Your task to perform on an android device: check storage Image 0: 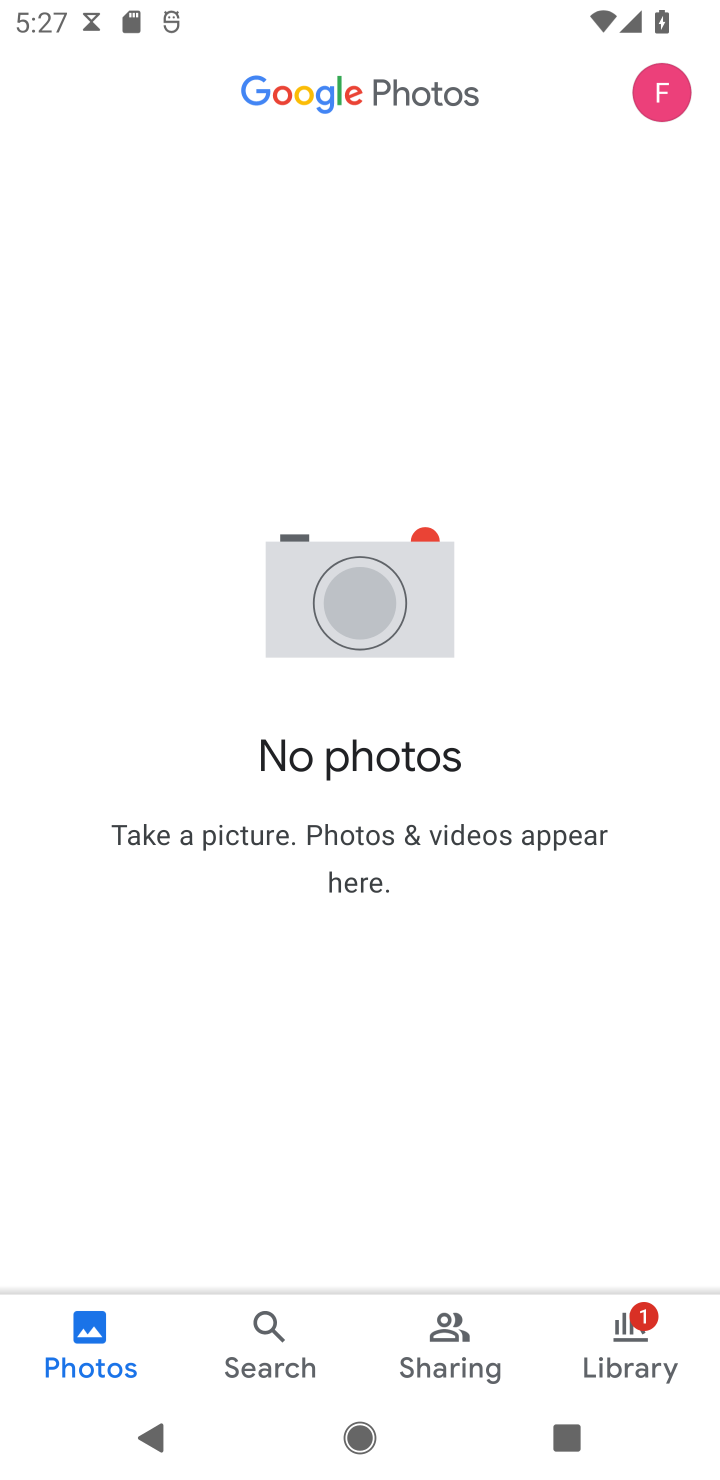
Step 0: press home button
Your task to perform on an android device: check storage Image 1: 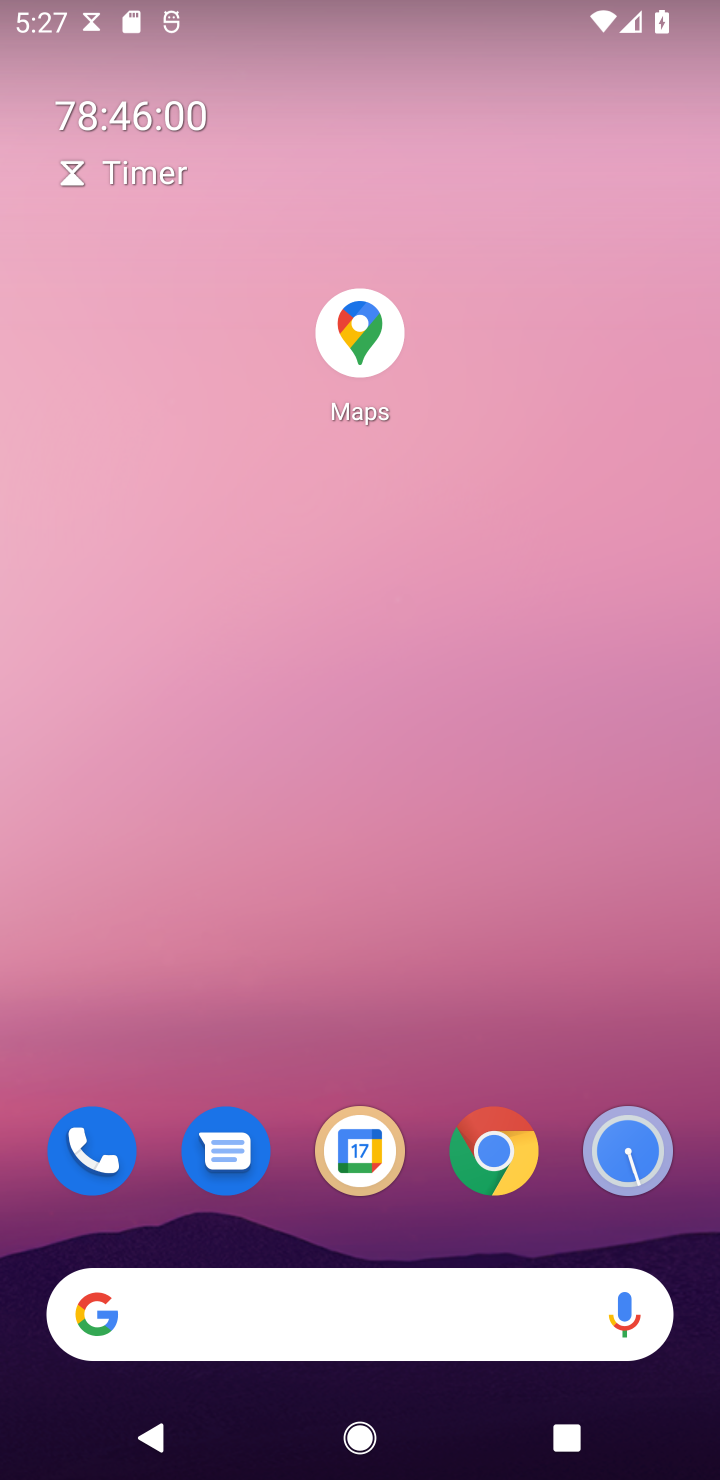
Step 1: drag from (393, 1117) to (515, 311)
Your task to perform on an android device: check storage Image 2: 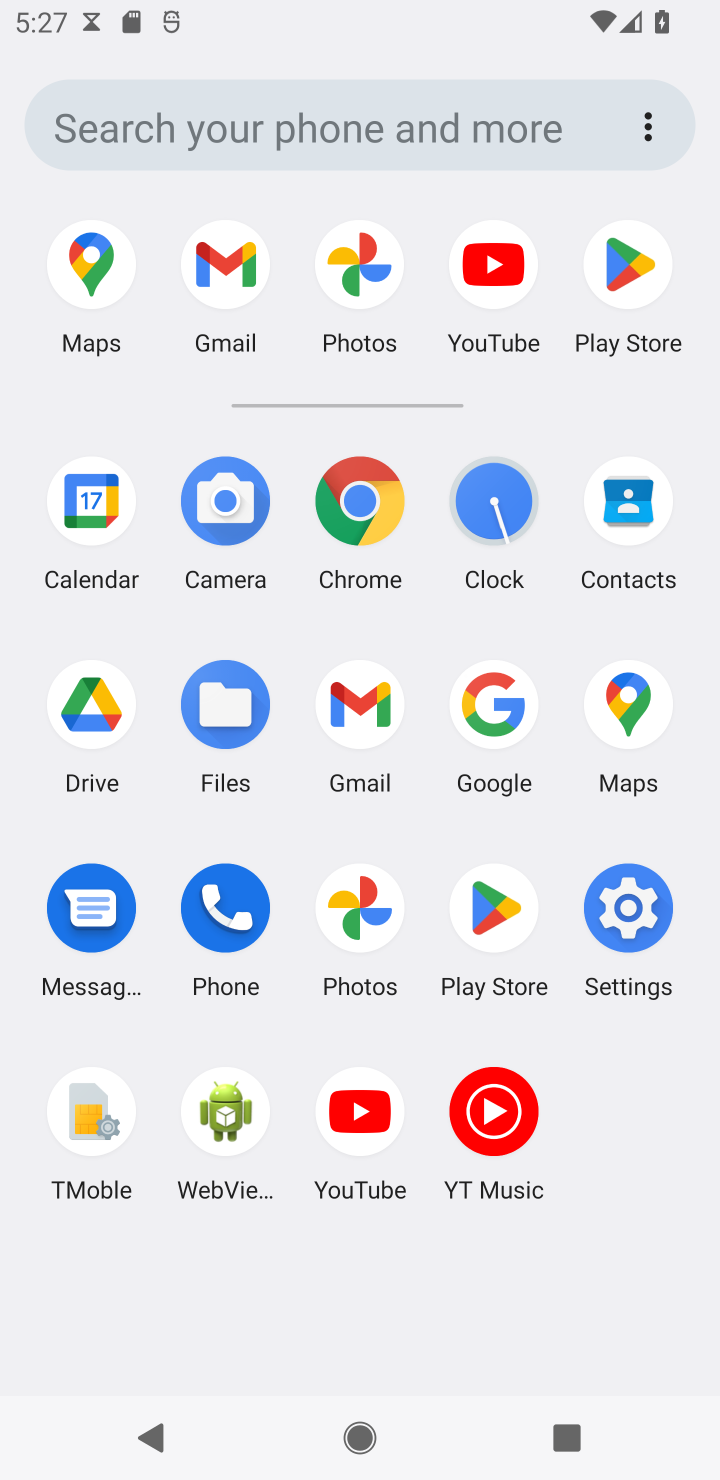
Step 2: click (611, 899)
Your task to perform on an android device: check storage Image 3: 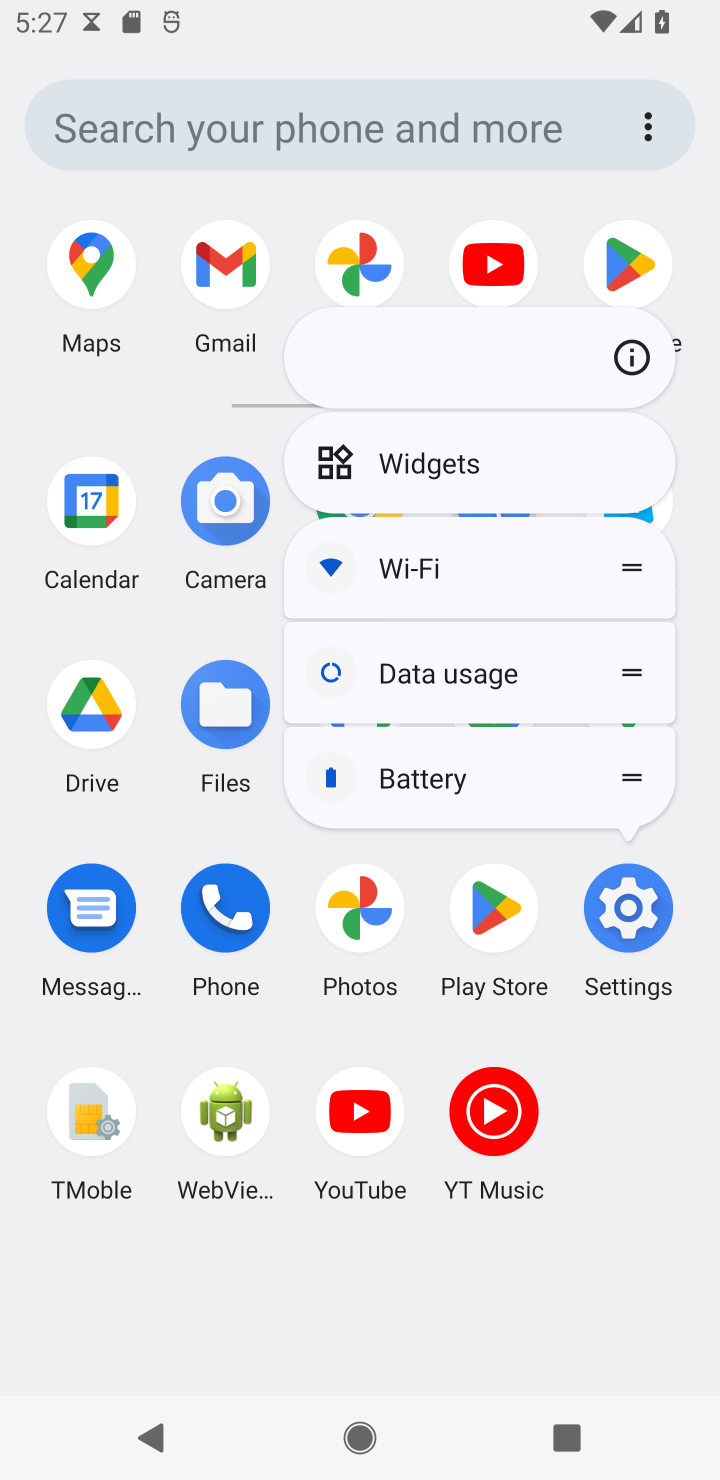
Step 3: click (634, 925)
Your task to perform on an android device: check storage Image 4: 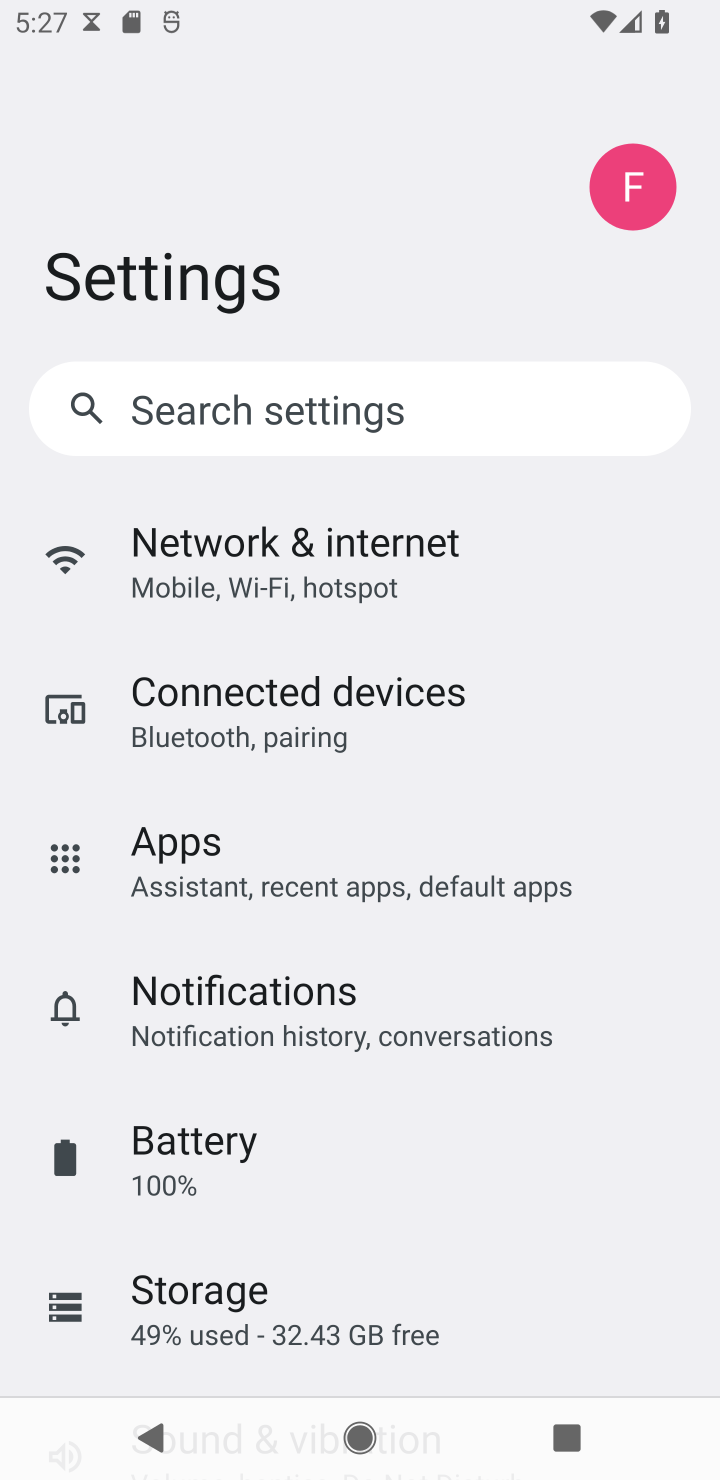
Step 4: click (252, 1247)
Your task to perform on an android device: check storage Image 5: 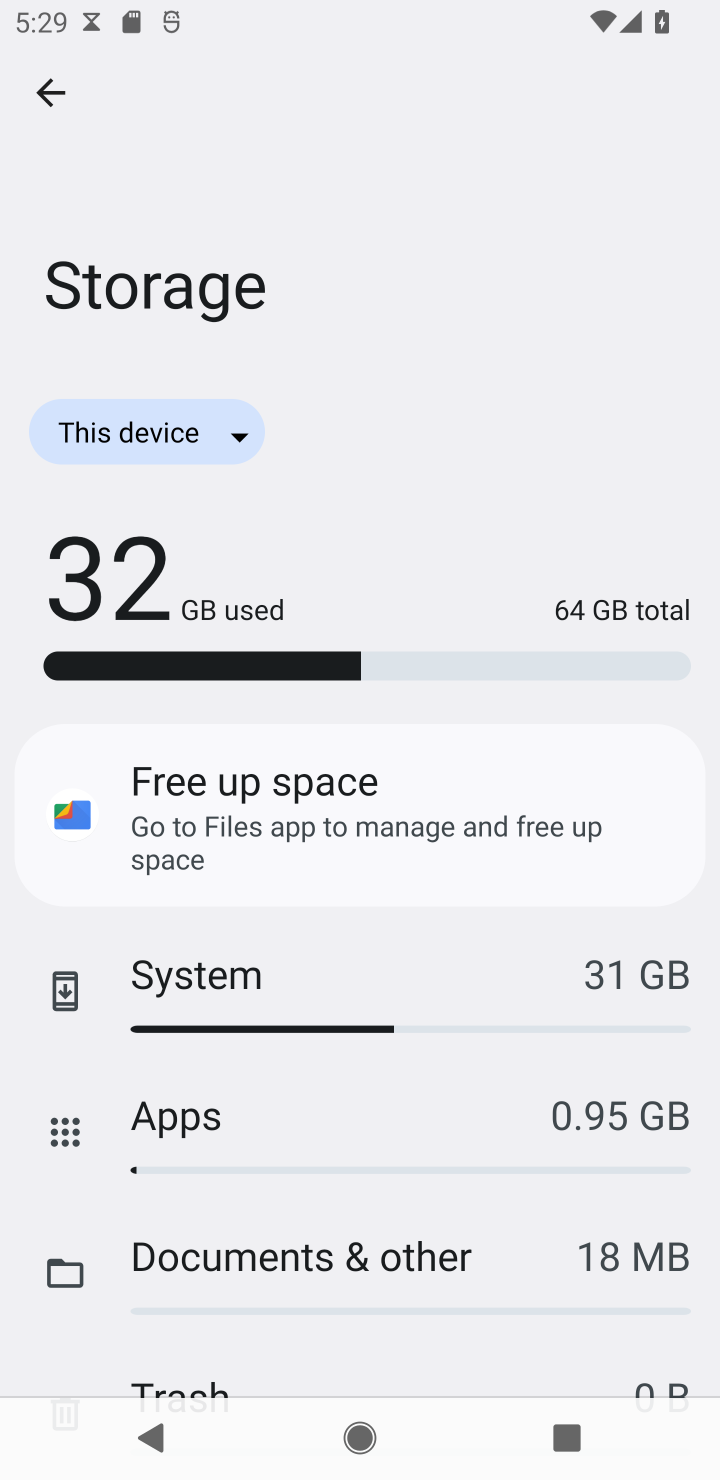
Step 5: task complete